Your task to perform on an android device: set the timer Image 0: 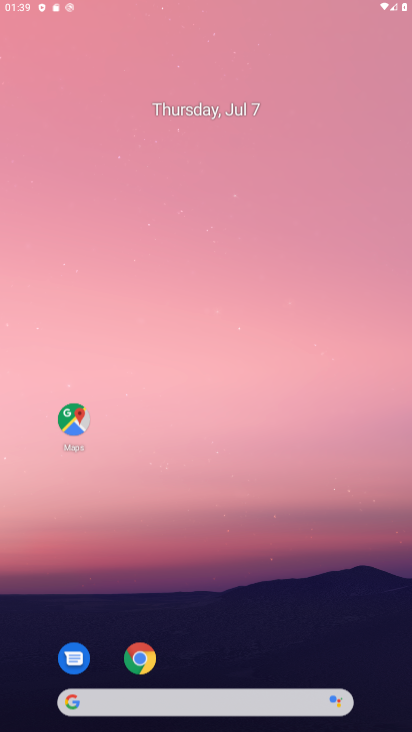
Step 0: click (215, 130)
Your task to perform on an android device: set the timer Image 1: 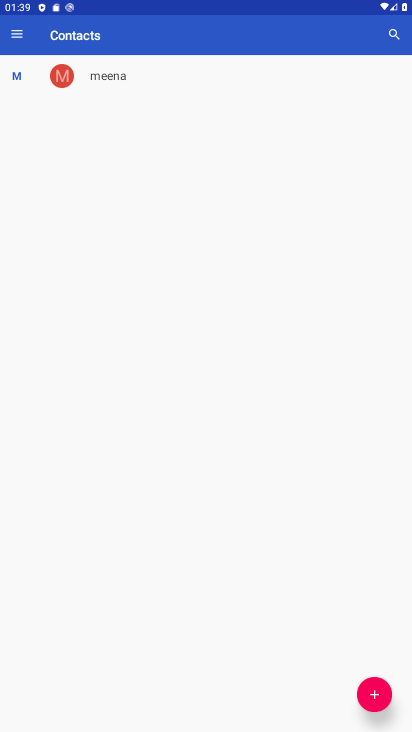
Step 1: press home button
Your task to perform on an android device: set the timer Image 2: 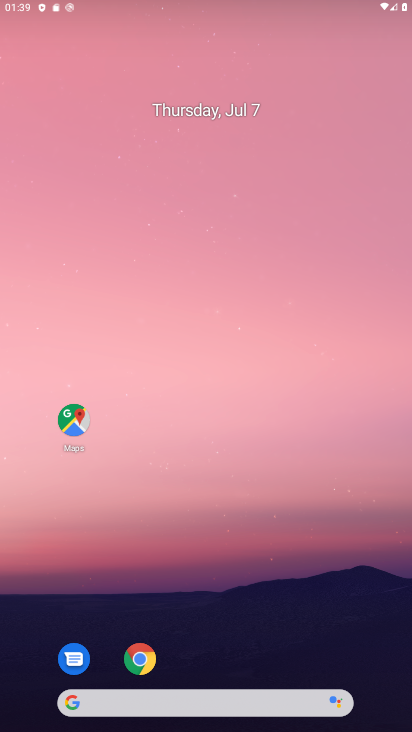
Step 2: drag from (230, 670) to (239, 158)
Your task to perform on an android device: set the timer Image 3: 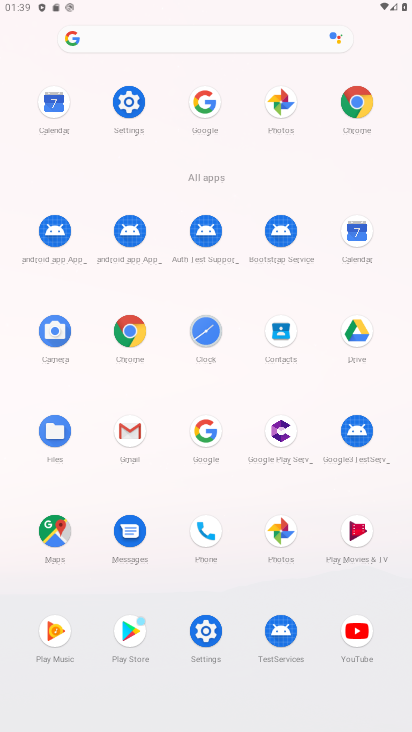
Step 3: click (201, 334)
Your task to perform on an android device: set the timer Image 4: 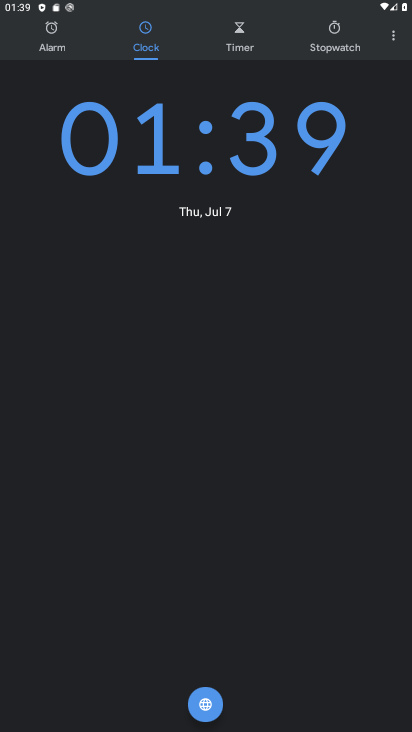
Step 4: click (235, 42)
Your task to perform on an android device: set the timer Image 5: 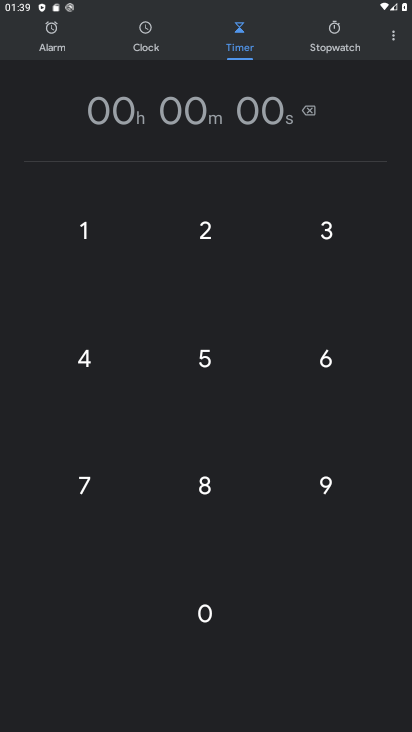
Step 5: click (205, 241)
Your task to perform on an android device: set the timer Image 6: 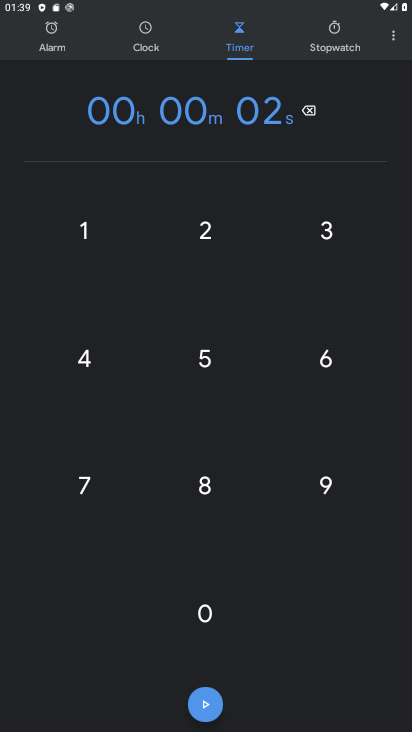
Step 6: click (316, 241)
Your task to perform on an android device: set the timer Image 7: 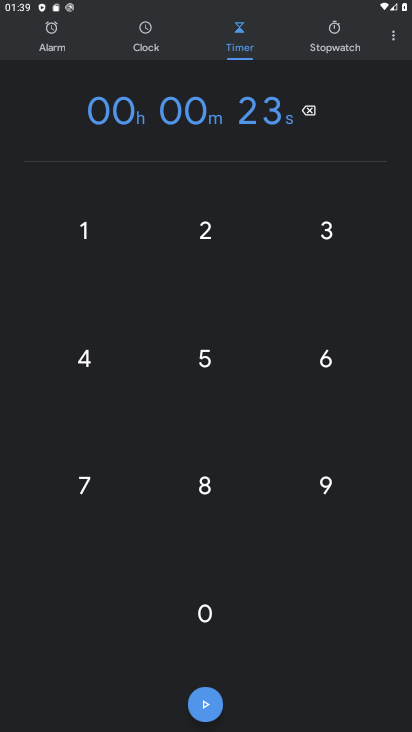
Step 7: click (214, 353)
Your task to perform on an android device: set the timer Image 8: 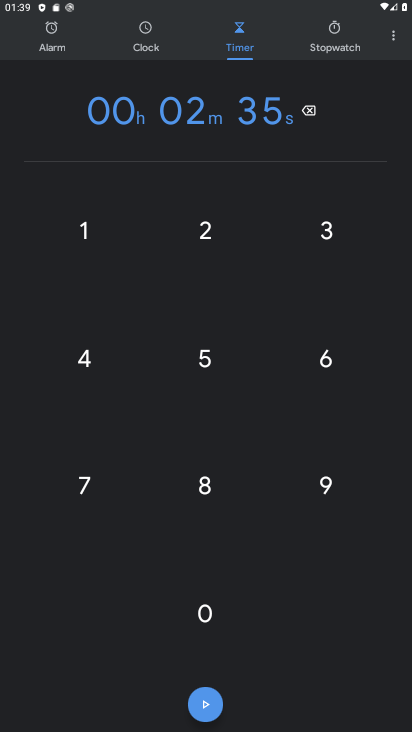
Step 8: task complete